Your task to perform on an android device: Go to eBay Image 0: 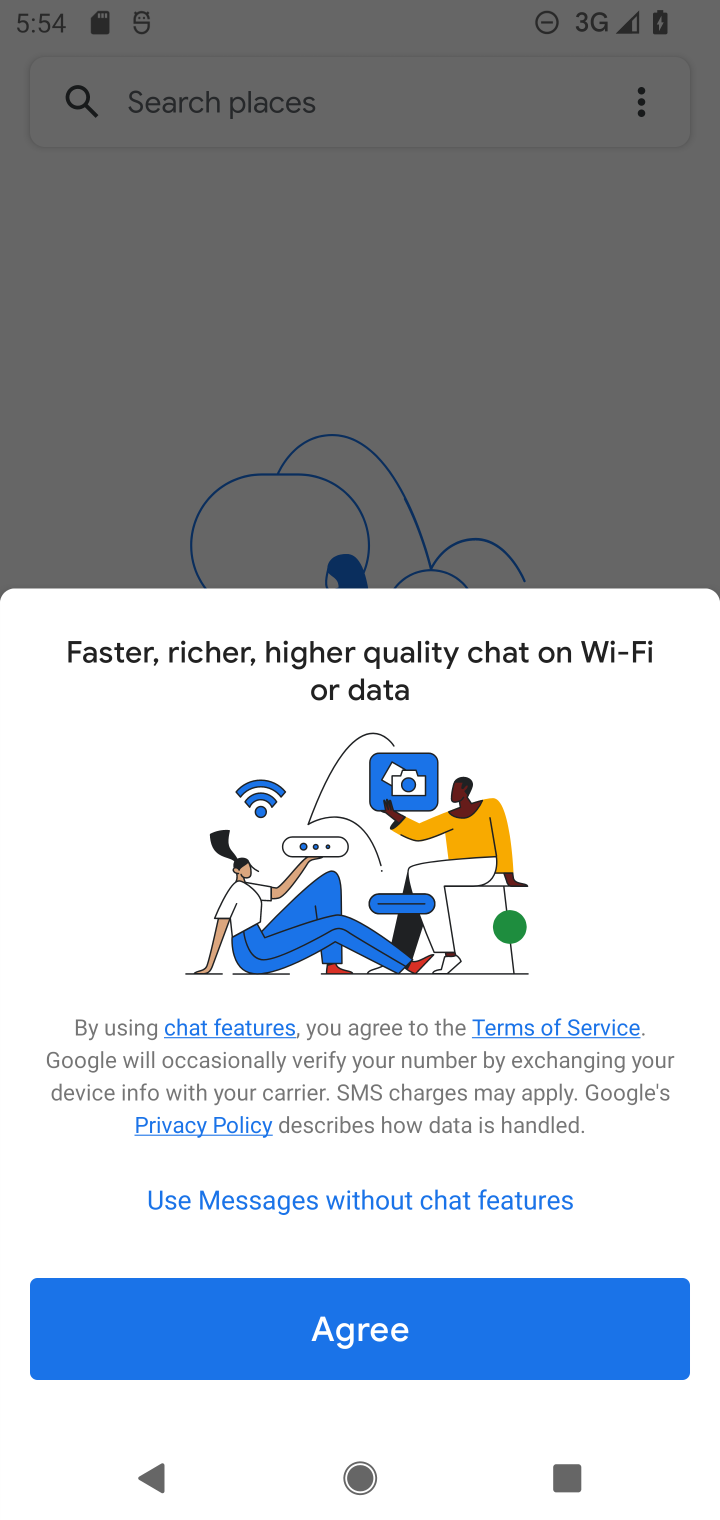
Step 0: press home button
Your task to perform on an android device: Go to eBay Image 1: 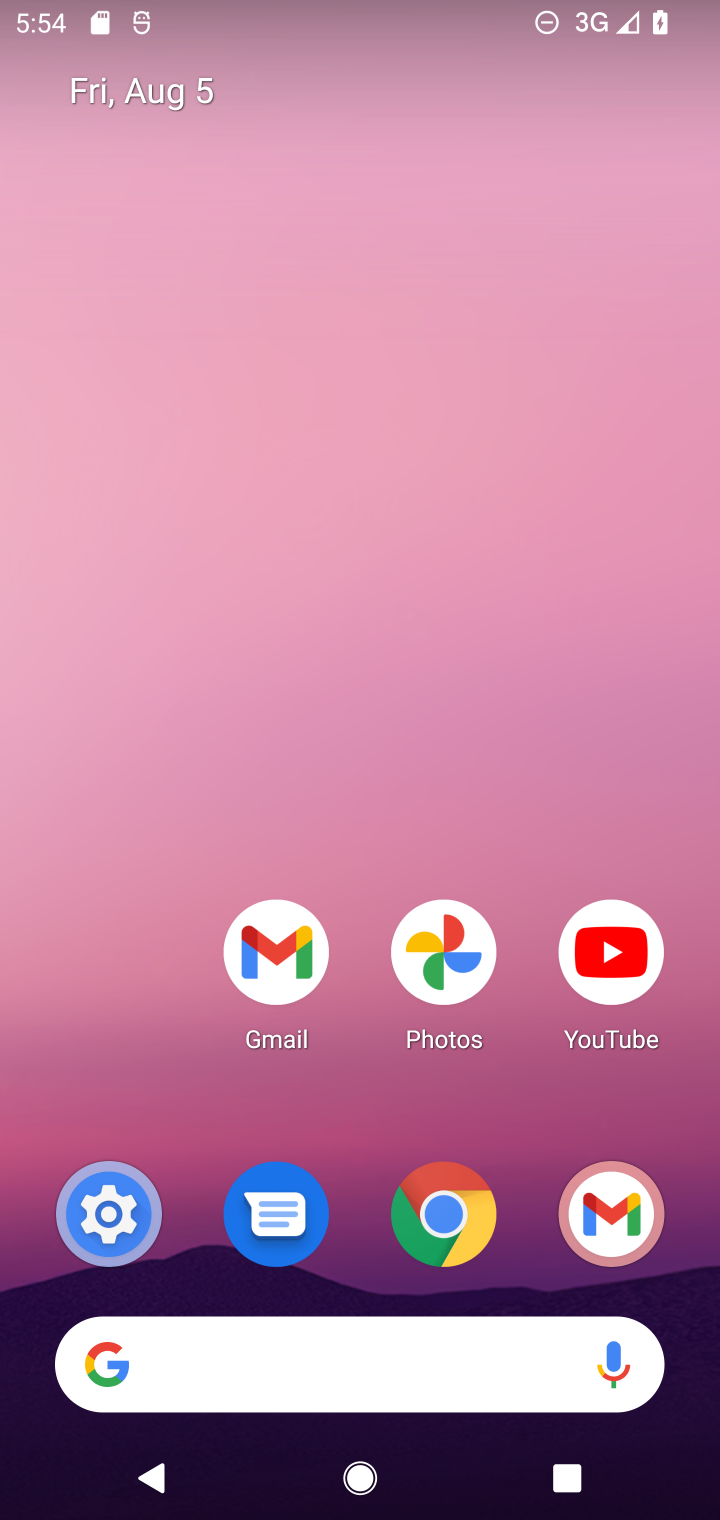
Step 1: click (459, 1355)
Your task to perform on an android device: Go to eBay Image 2: 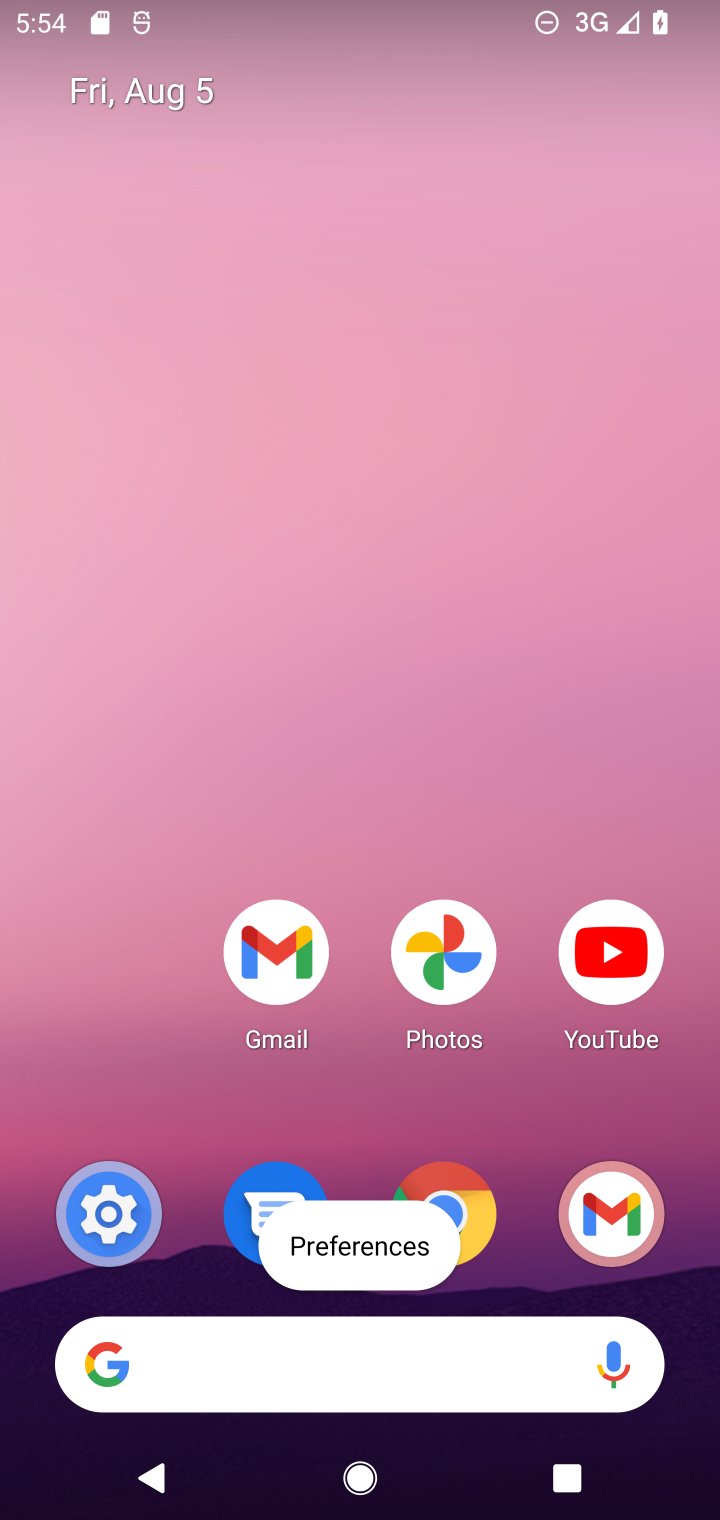
Step 2: click (499, 1395)
Your task to perform on an android device: Go to eBay Image 3: 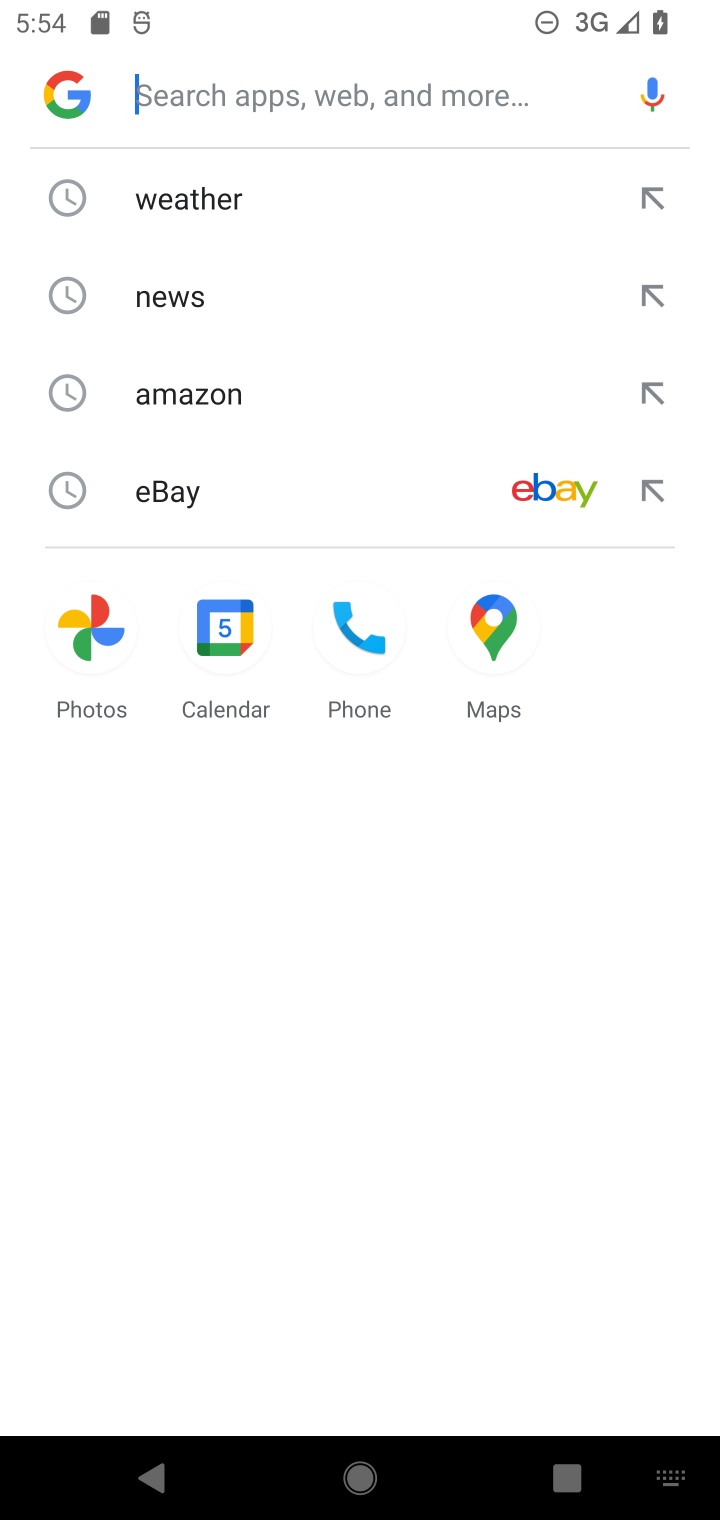
Step 3: click (422, 477)
Your task to perform on an android device: Go to eBay Image 4: 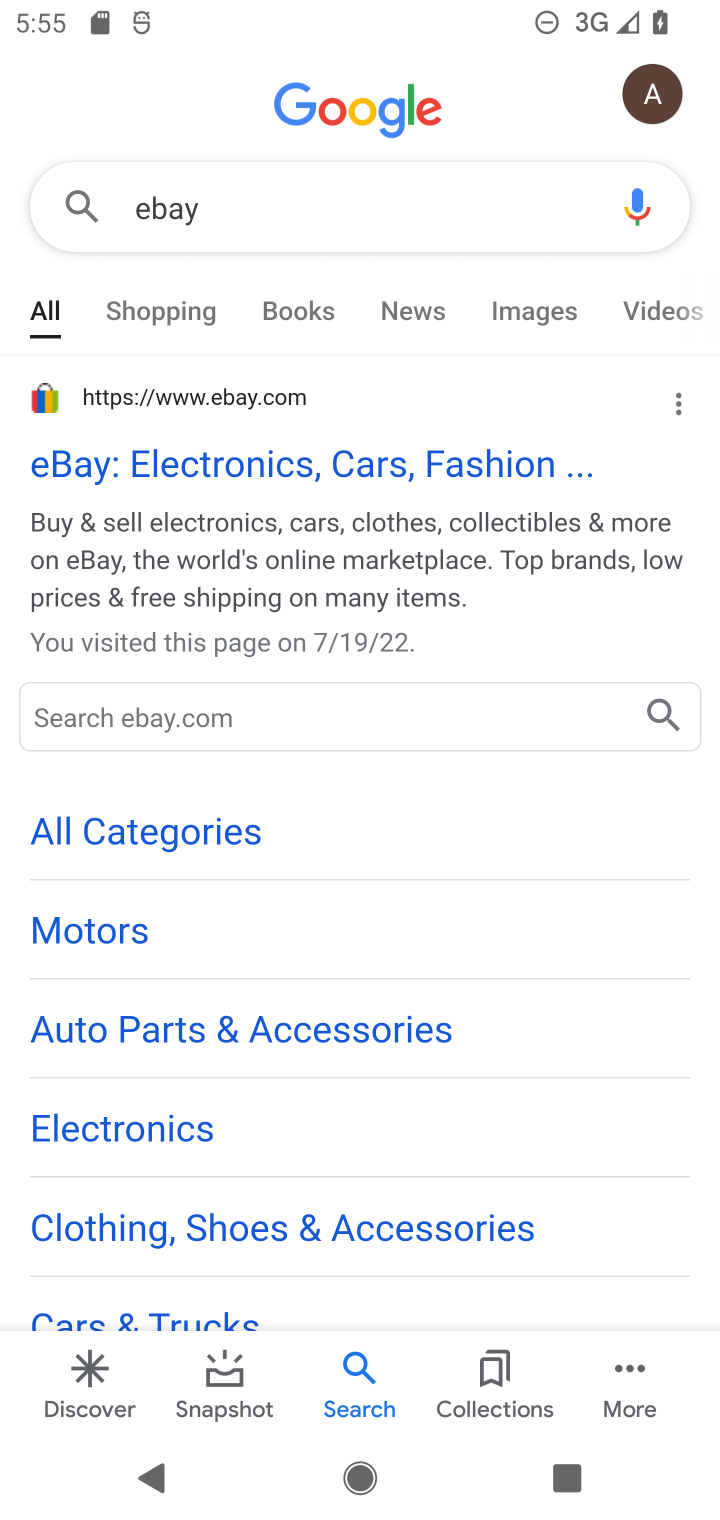
Step 4: click (97, 472)
Your task to perform on an android device: Go to eBay Image 5: 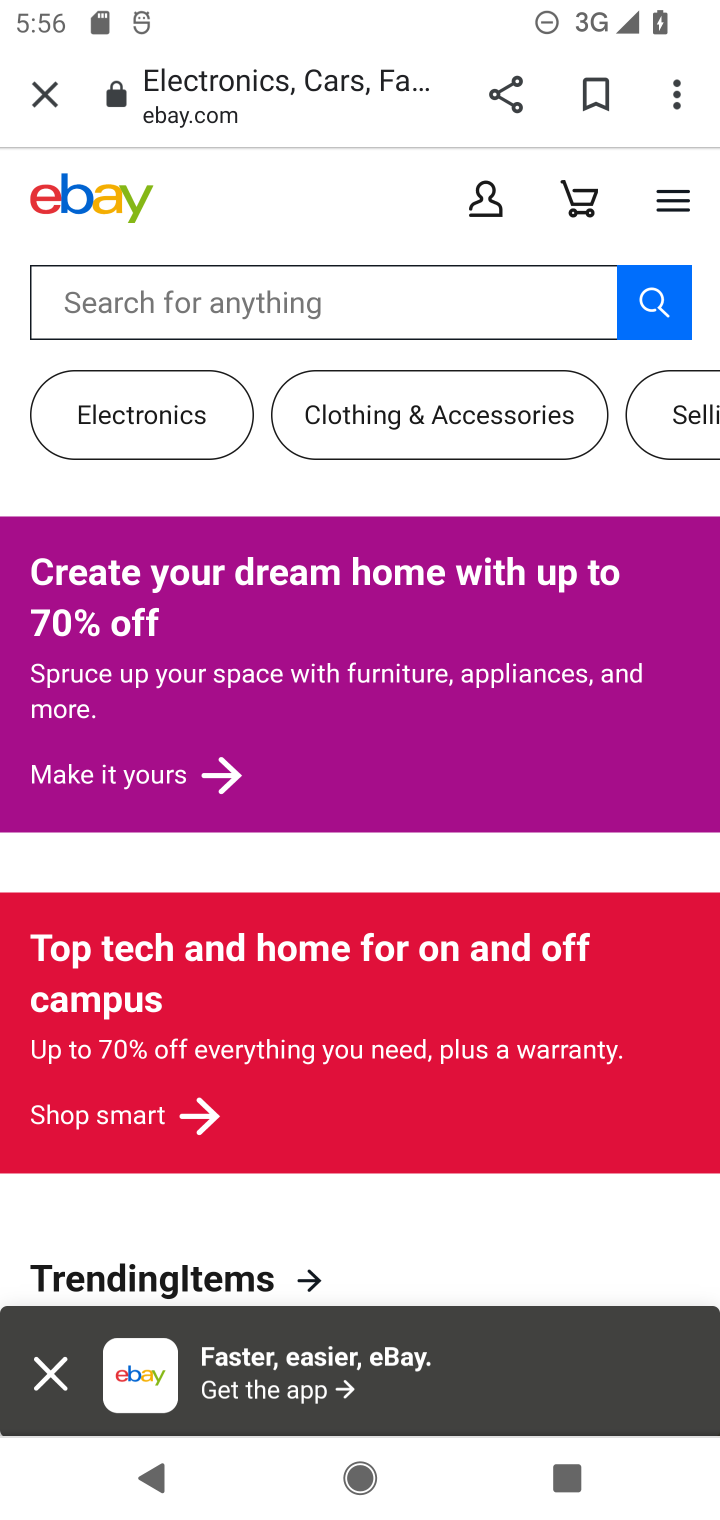
Step 5: task complete